Your task to perform on an android device: Check the news Image 0: 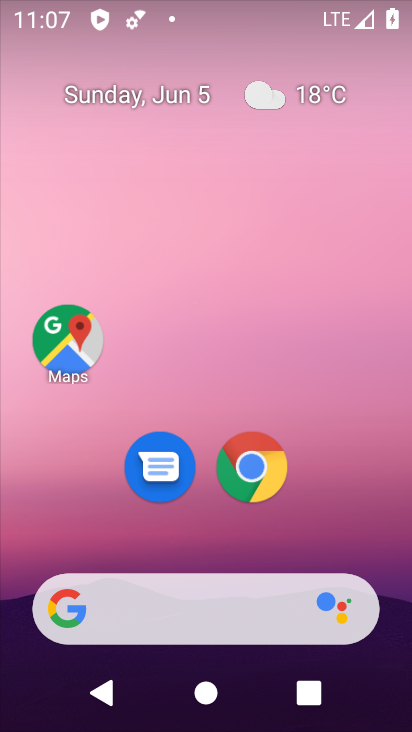
Step 0: click (191, 569)
Your task to perform on an android device: Check the news Image 1: 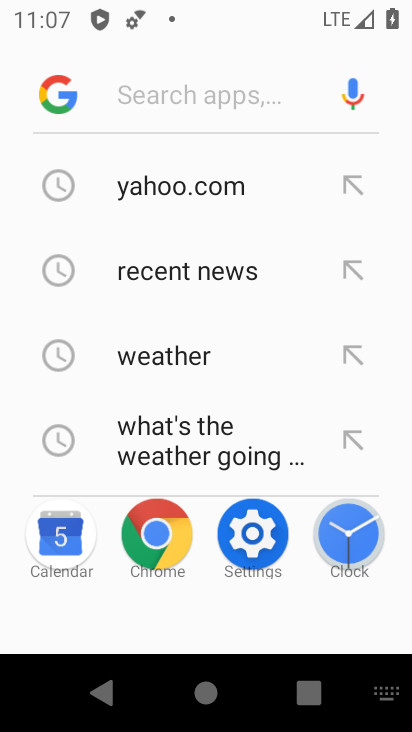
Step 1: click (120, 306)
Your task to perform on an android device: Check the news Image 2: 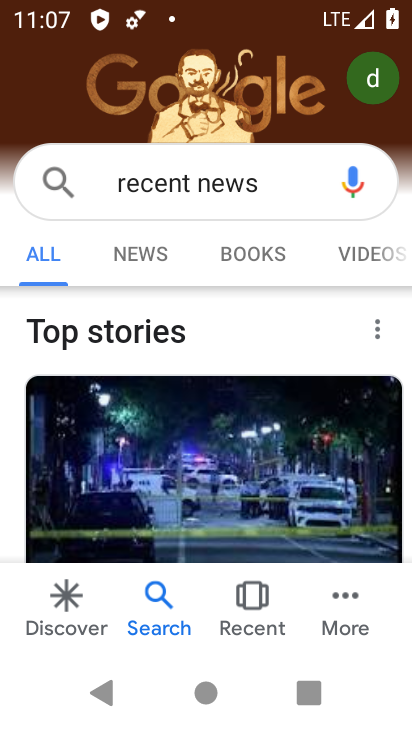
Step 2: click (126, 248)
Your task to perform on an android device: Check the news Image 3: 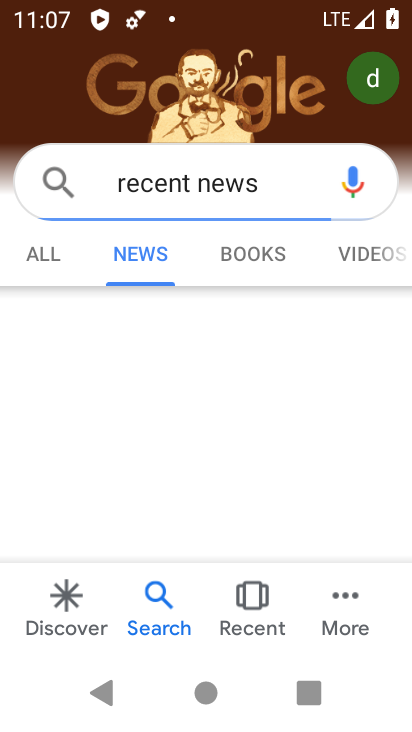
Step 3: task complete